Your task to perform on an android device: Go to eBay Image 0: 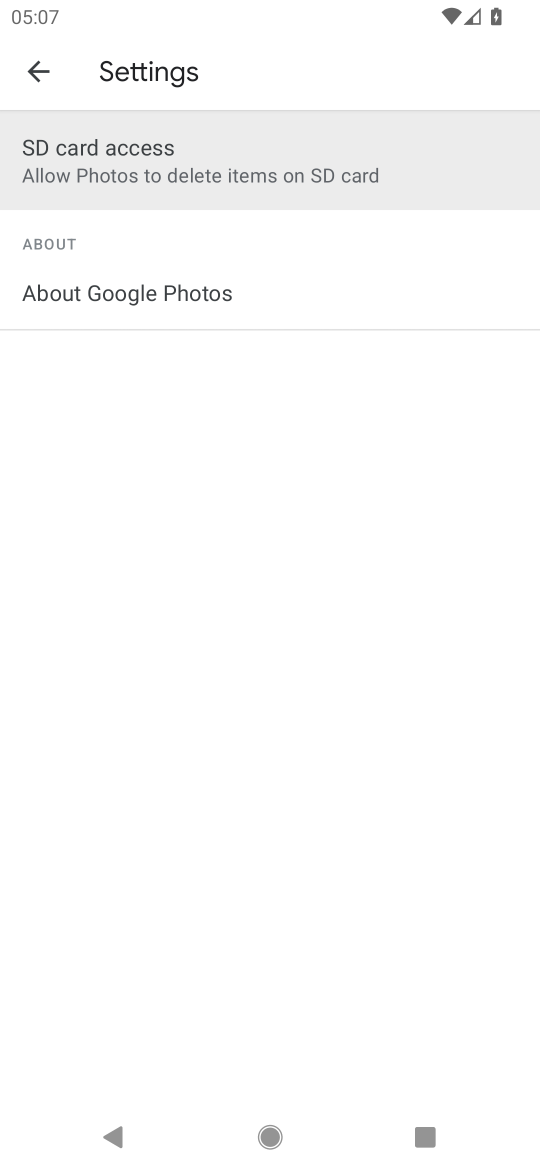
Step 0: press home button
Your task to perform on an android device: Go to eBay Image 1: 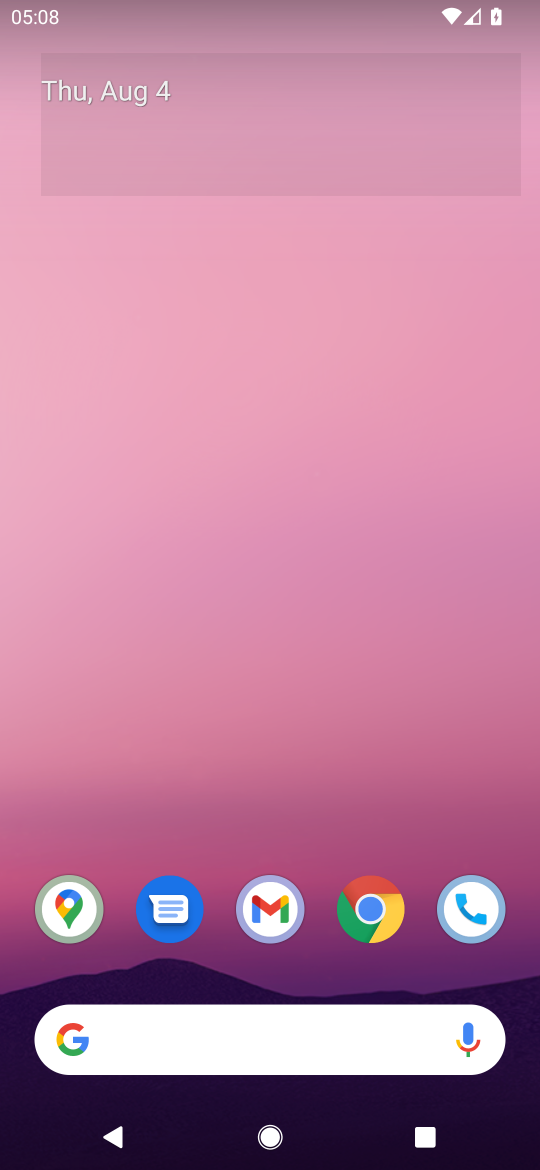
Step 1: drag from (415, 909) to (393, 671)
Your task to perform on an android device: Go to eBay Image 2: 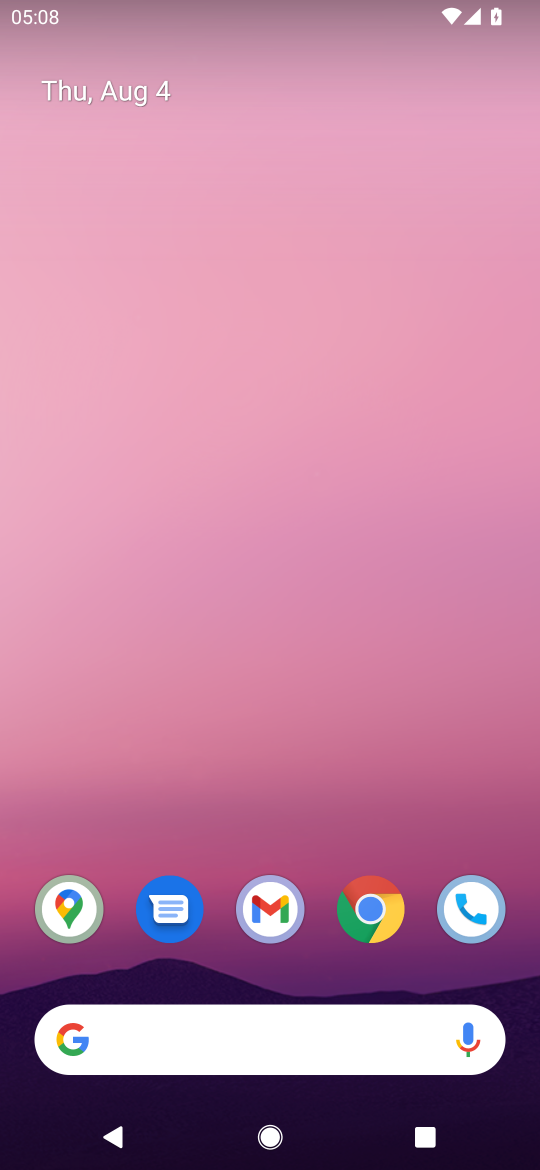
Step 2: click (59, 1033)
Your task to perform on an android device: Go to eBay Image 3: 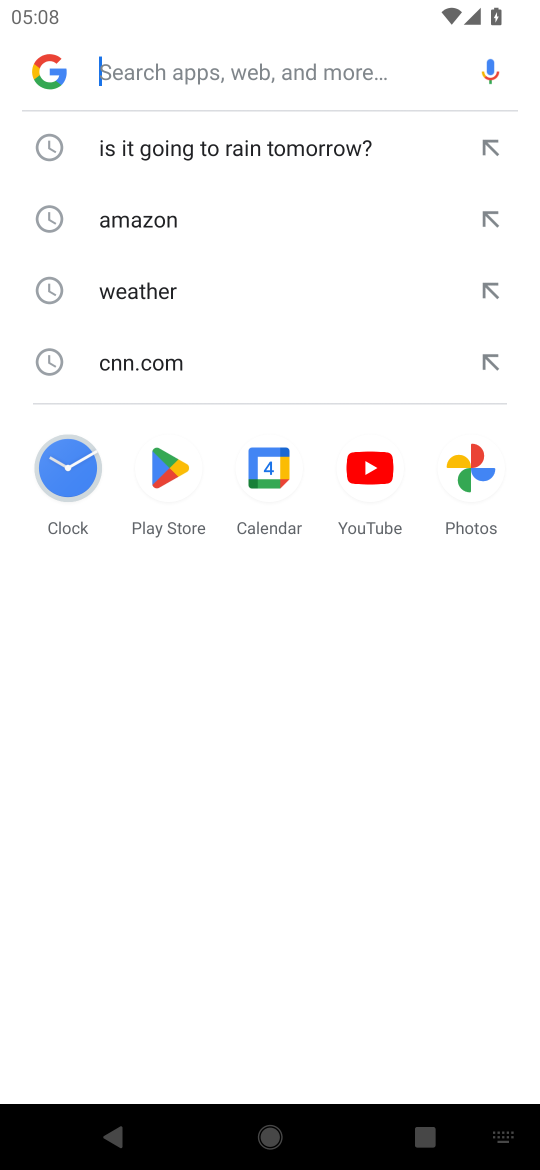
Step 3: type "eBay"
Your task to perform on an android device: Go to eBay Image 4: 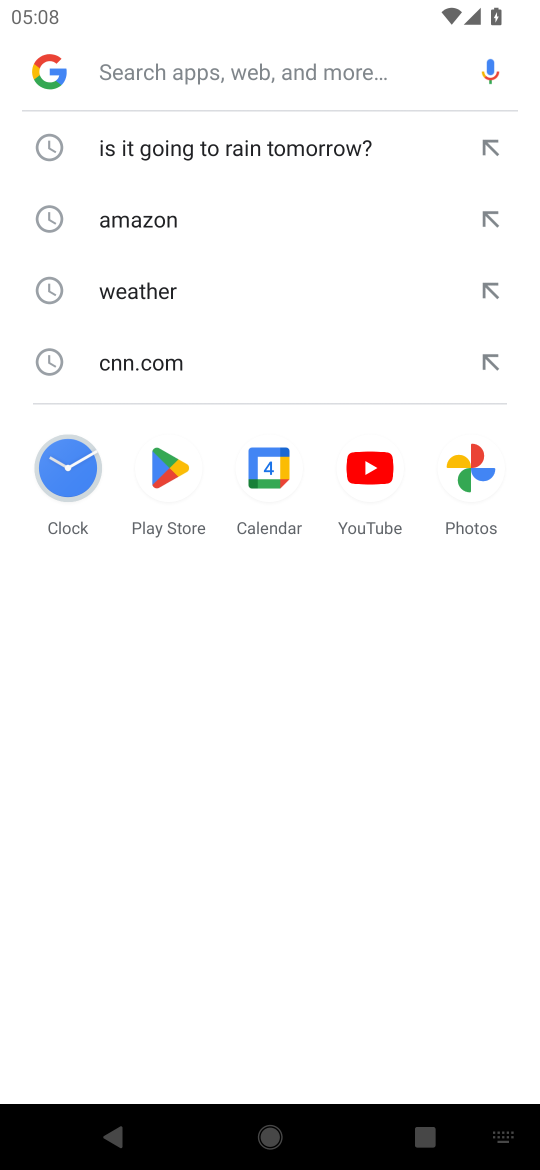
Step 4: click (205, 75)
Your task to perform on an android device: Go to eBay Image 5: 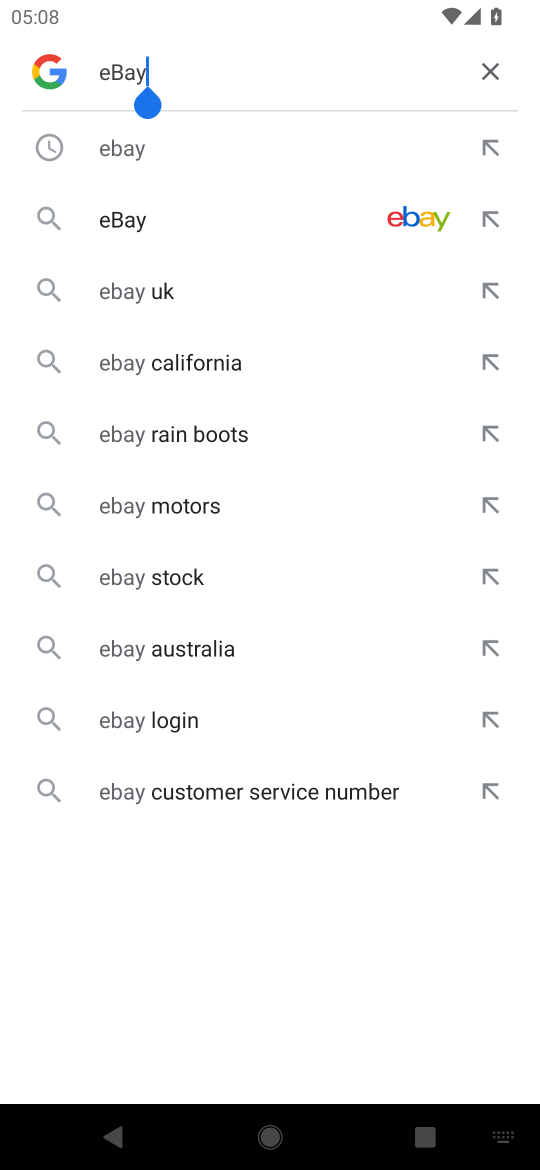
Step 5: click (407, 215)
Your task to perform on an android device: Go to eBay Image 6: 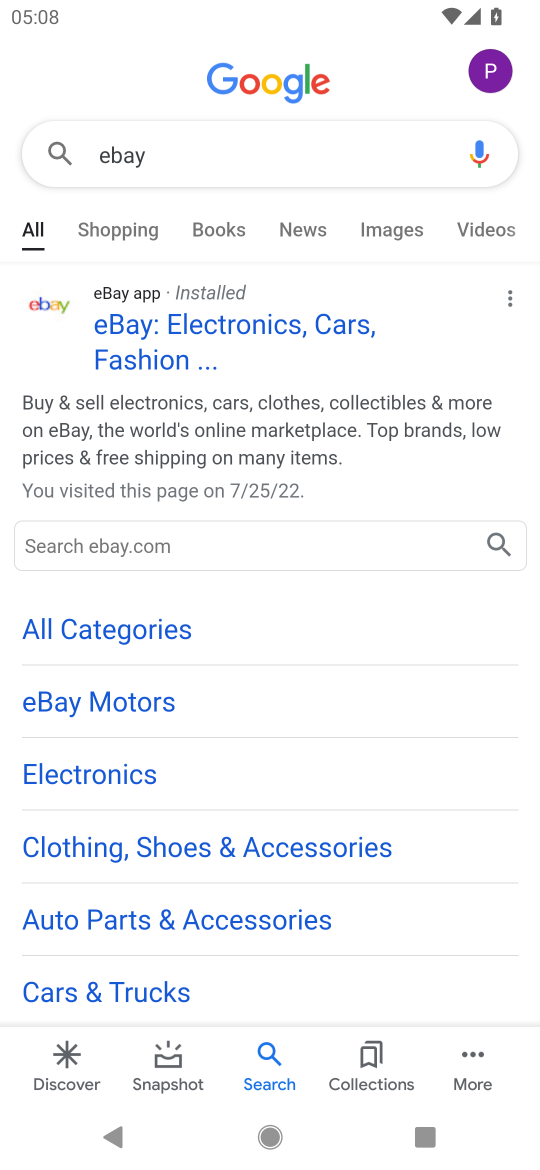
Step 6: drag from (348, 779) to (237, 195)
Your task to perform on an android device: Go to eBay Image 7: 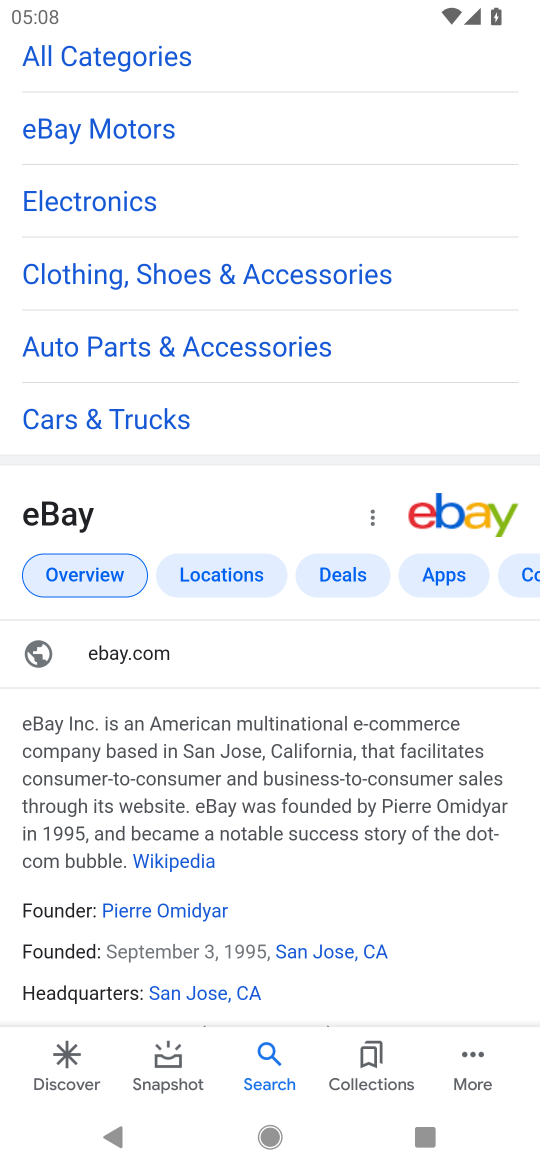
Step 7: click (61, 522)
Your task to perform on an android device: Go to eBay Image 8: 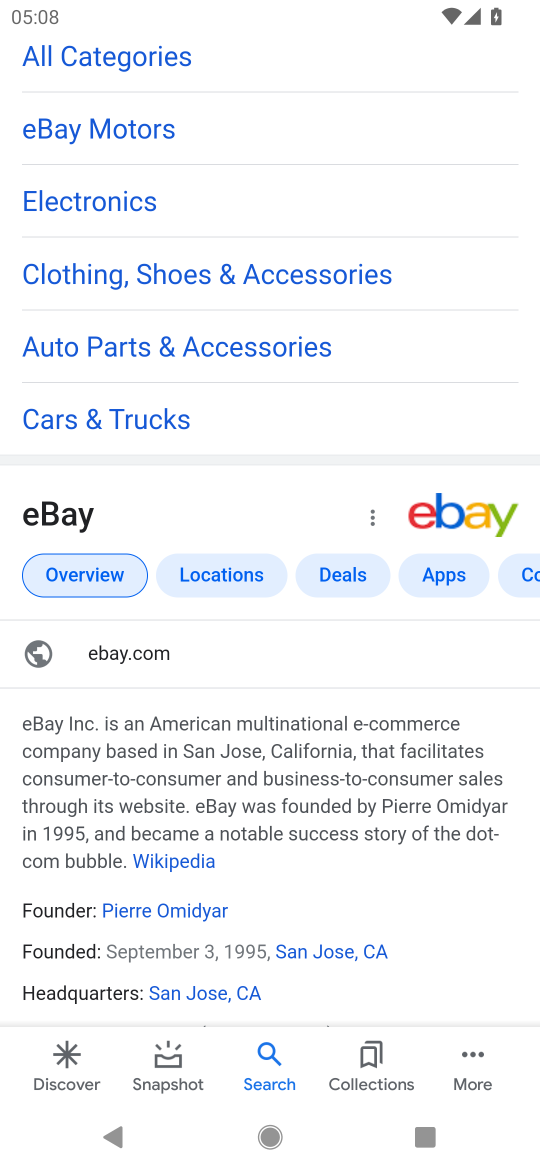
Step 8: click (50, 516)
Your task to perform on an android device: Go to eBay Image 9: 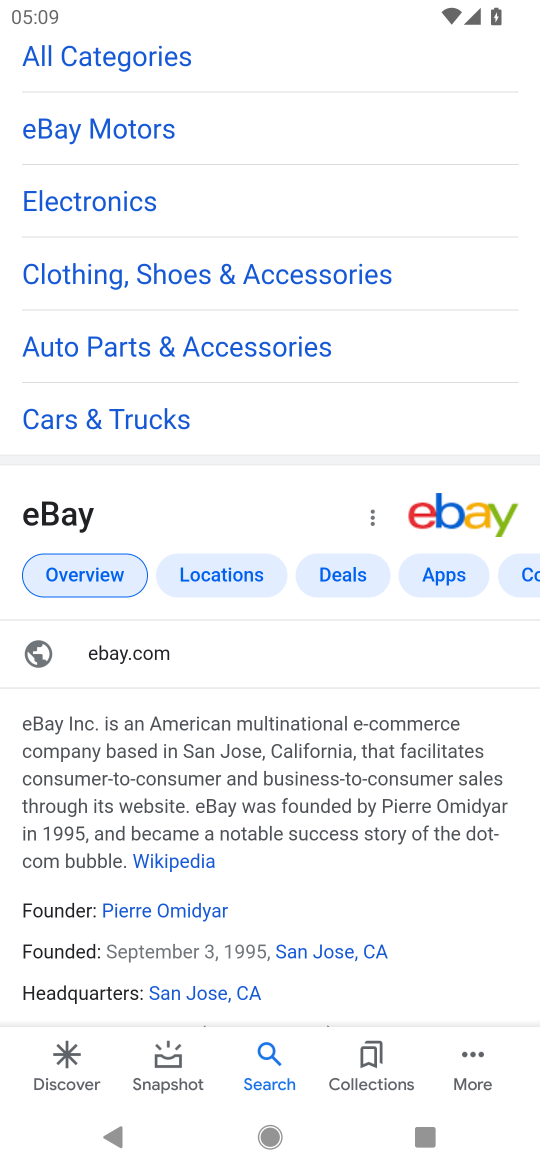
Step 9: click (139, 655)
Your task to perform on an android device: Go to eBay Image 10: 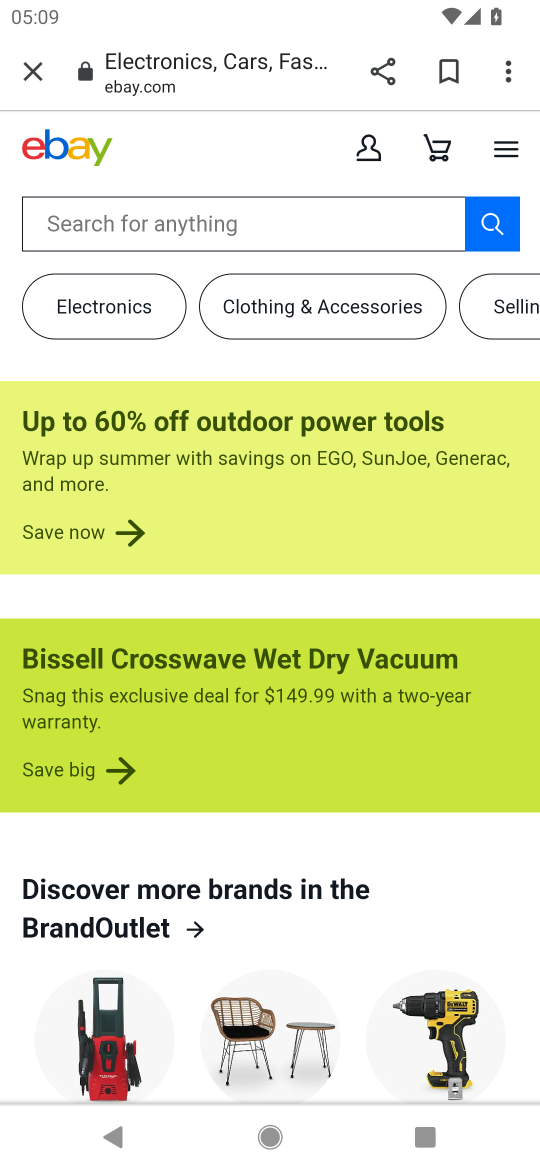
Step 10: task complete